Your task to perform on an android device: Open Google Chrome Image 0: 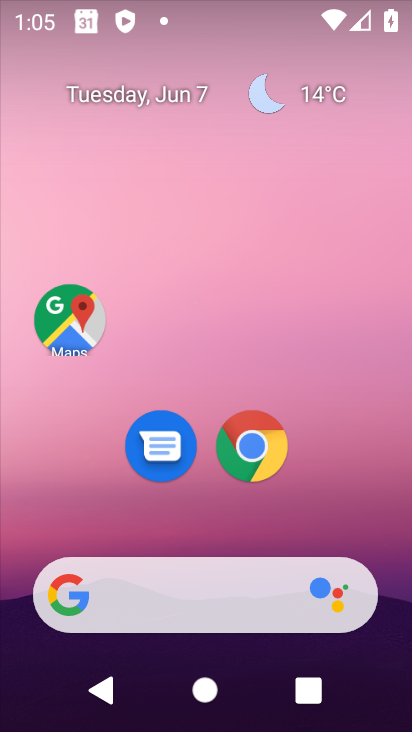
Step 0: drag from (342, 522) to (267, 17)
Your task to perform on an android device: Open Google Chrome Image 1: 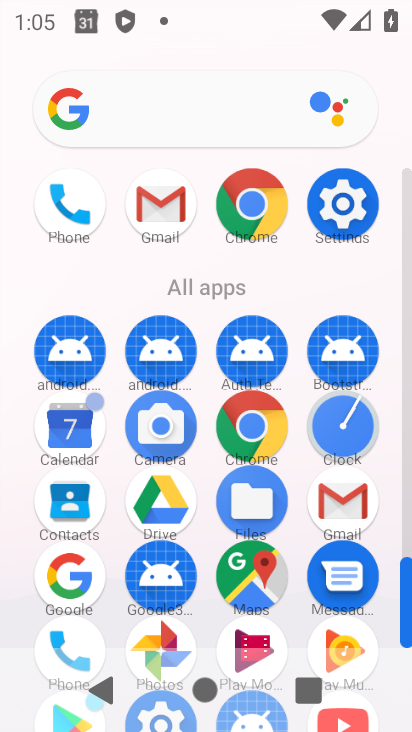
Step 1: click (254, 195)
Your task to perform on an android device: Open Google Chrome Image 2: 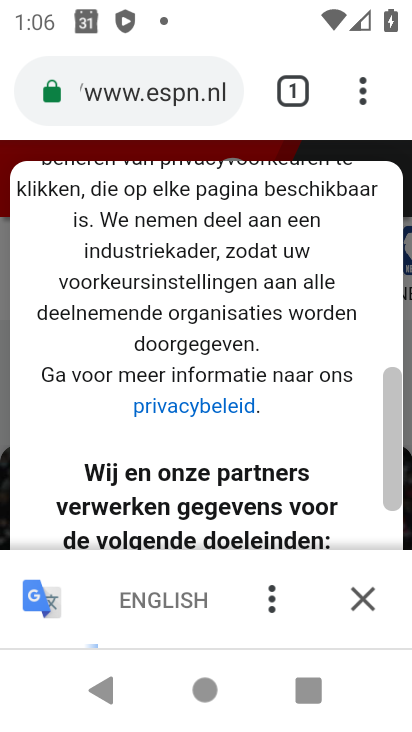
Step 2: task complete